Your task to perform on an android device: Go to calendar. Show me events next week Image 0: 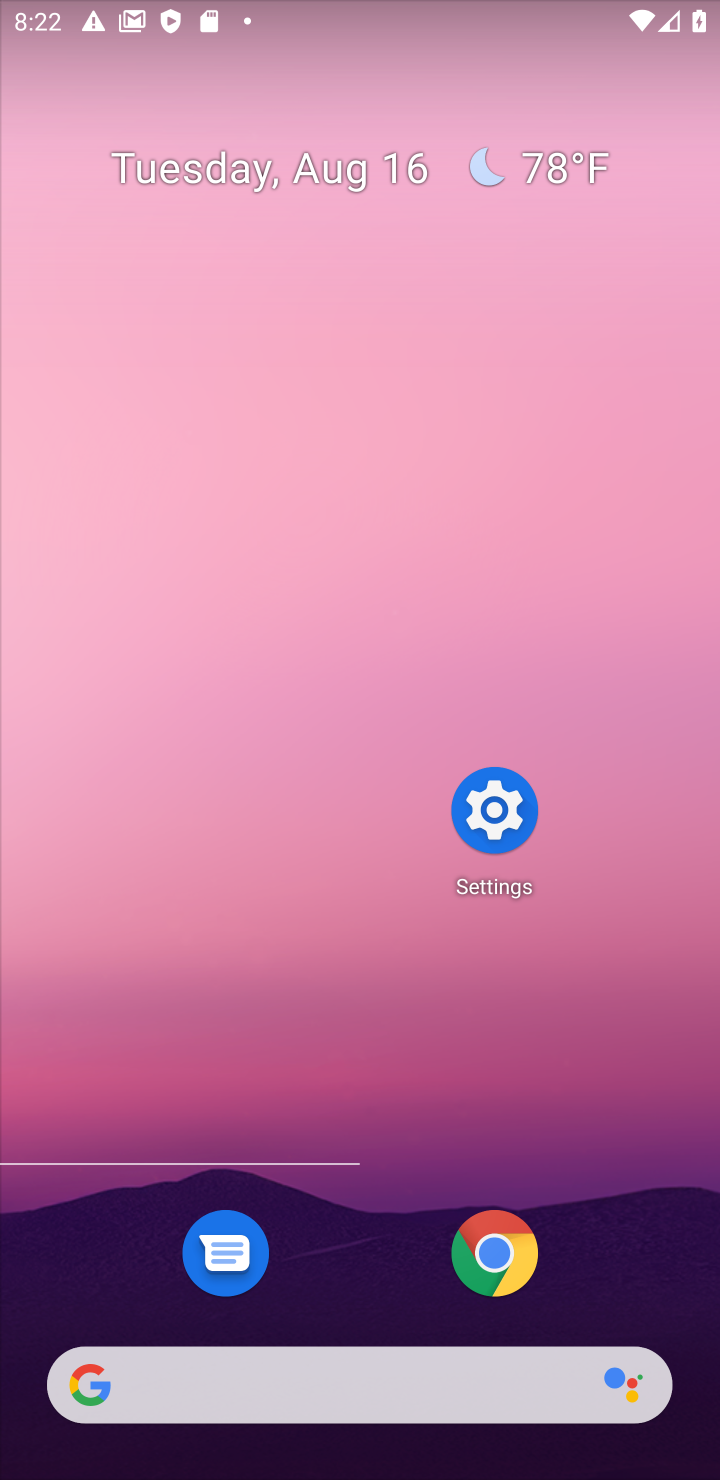
Step 0: drag from (434, 926) to (560, 164)
Your task to perform on an android device: Go to calendar. Show me events next week Image 1: 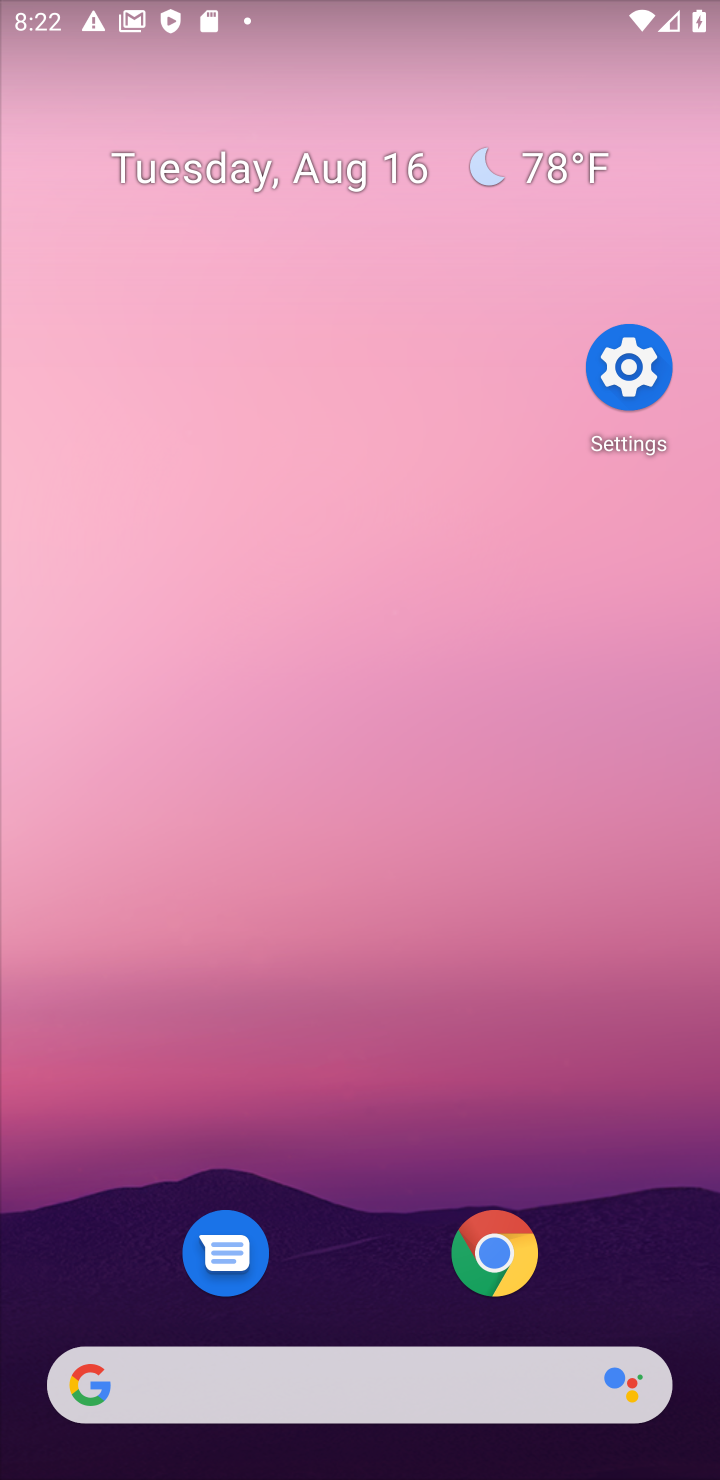
Step 1: drag from (623, 369) to (527, 939)
Your task to perform on an android device: Go to calendar. Show me events next week Image 2: 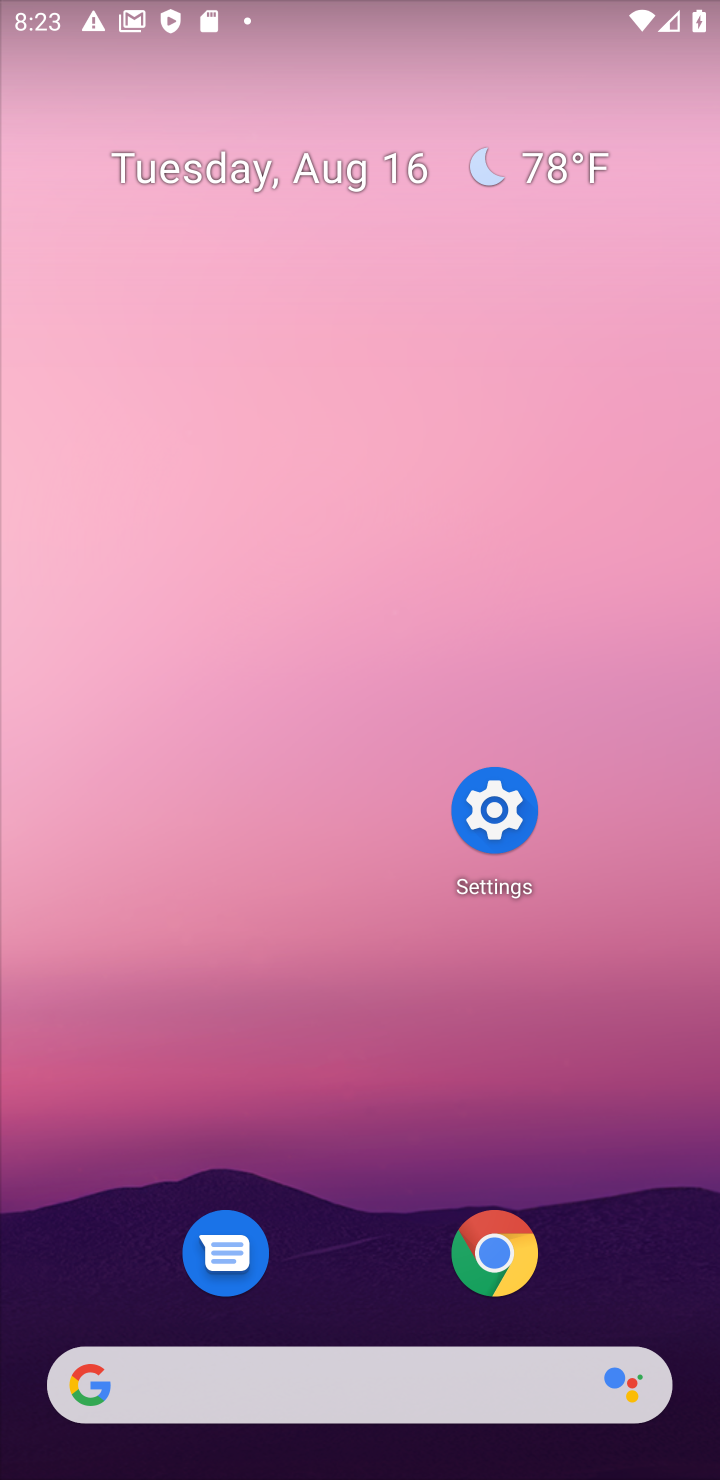
Step 2: drag from (328, 1191) to (511, 346)
Your task to perform on an android device: Go to calendar. Show me events next week Image 3: 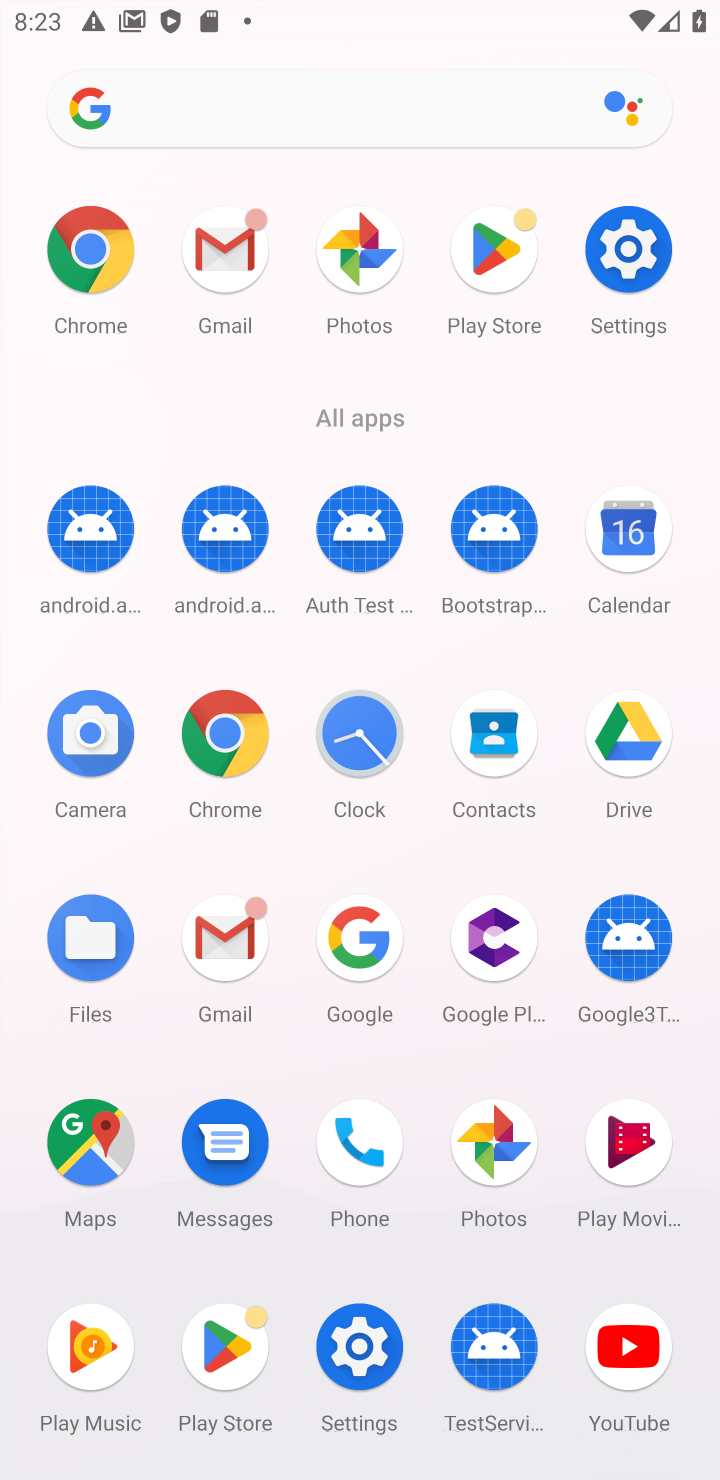
Step 3: click (218, 257)
Your task to perform on an android device: Go to calendar. Show me events next week Image 4: 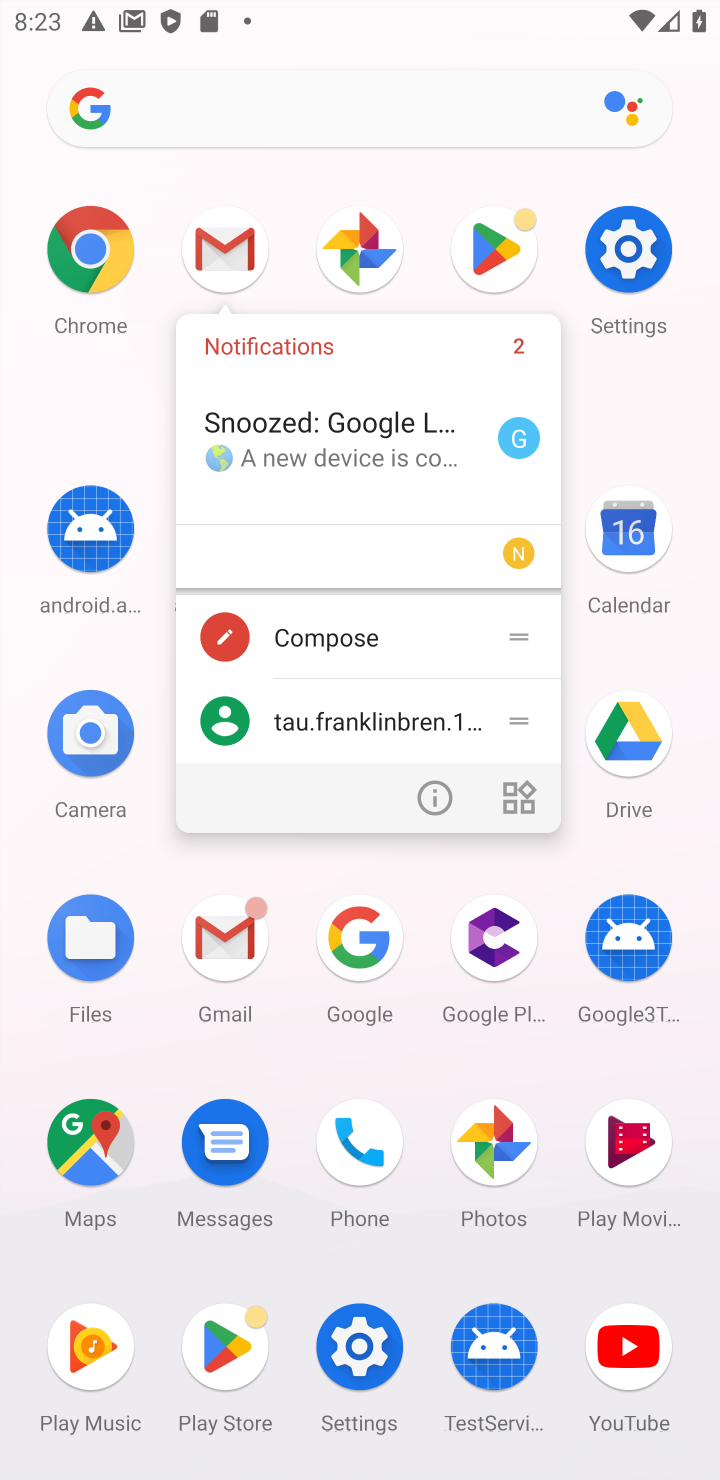
Step 4: click (616, 538)
Your task to perform on an android device: Go to calendar. Show me events next week Image 5: 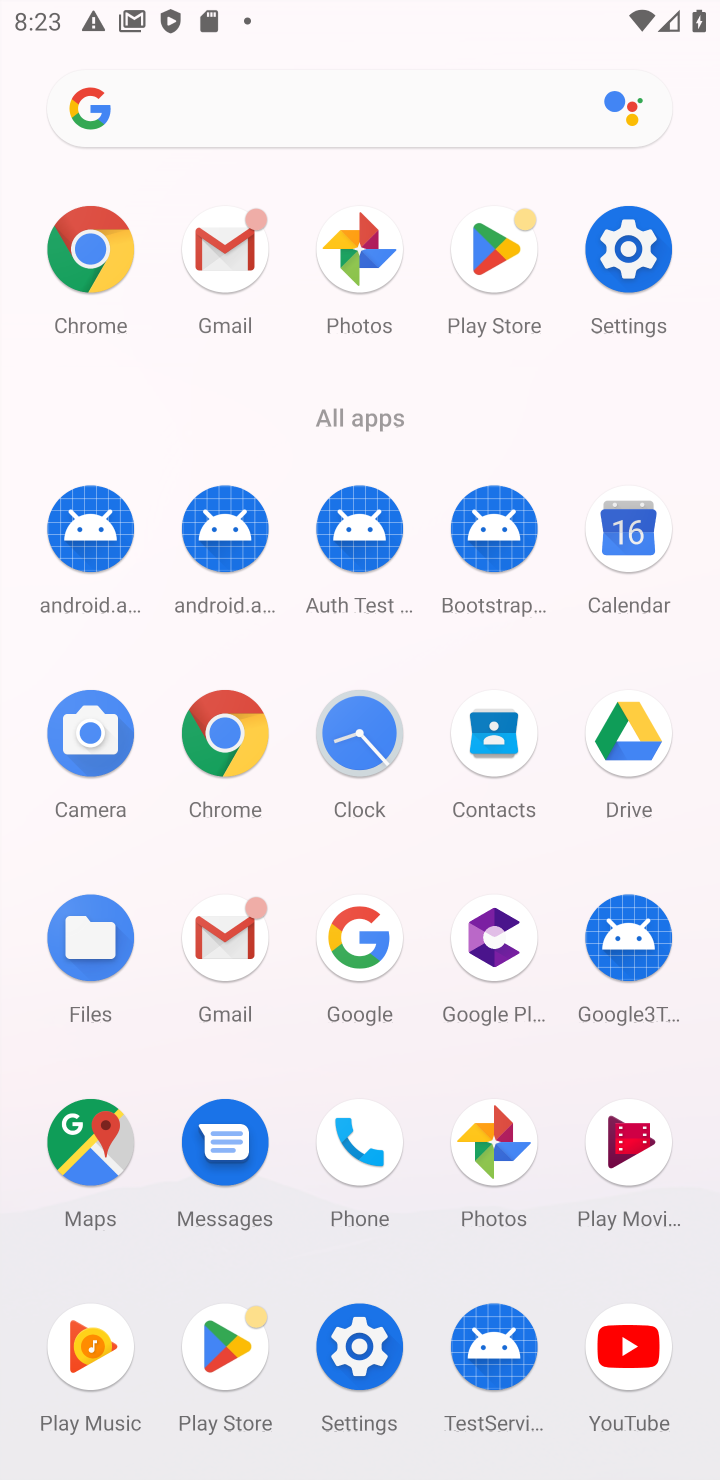
Step 5: click (632, 537)
Your task to perform on an android device: Go to calendar. Show me events next week Image 6: 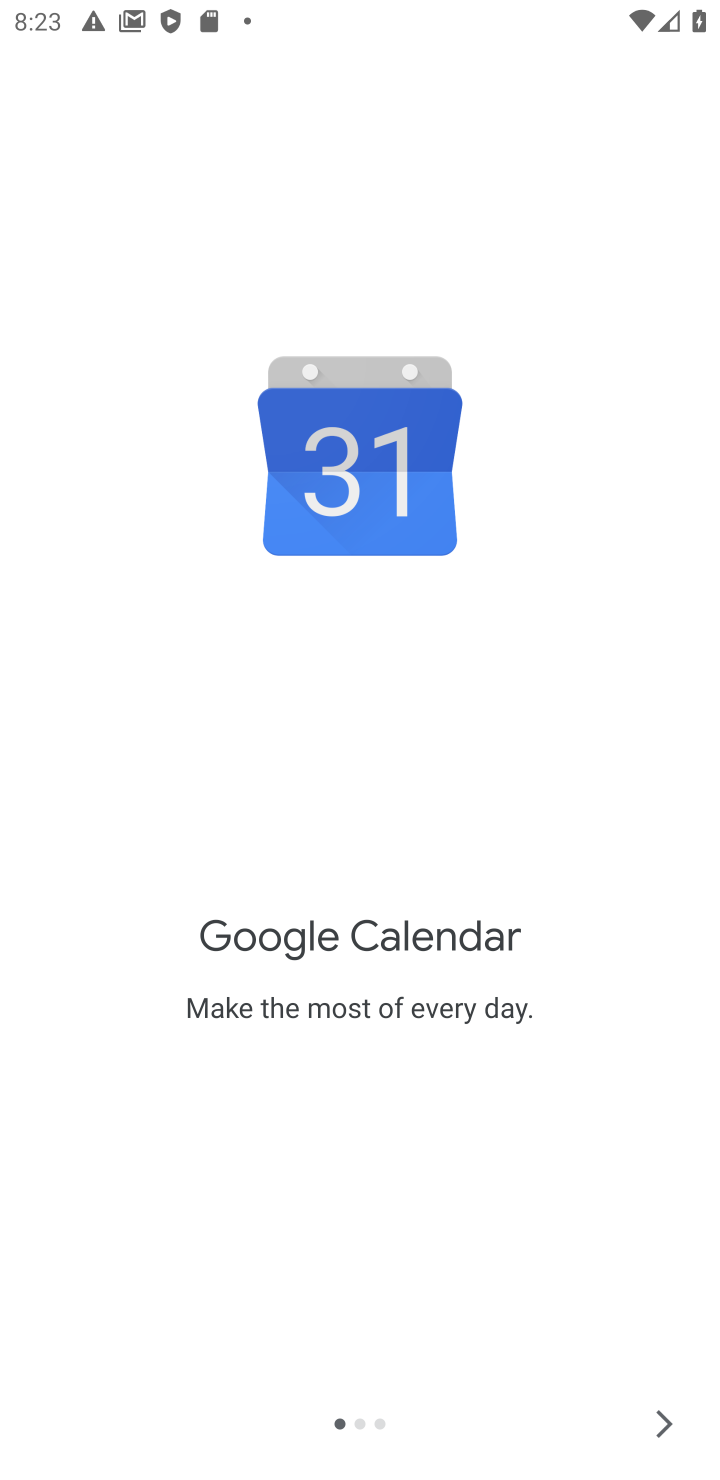
Step 6: click (668, 1422)
Your task to perform on an android device: Go to calendar. Show me events next week Image 7: 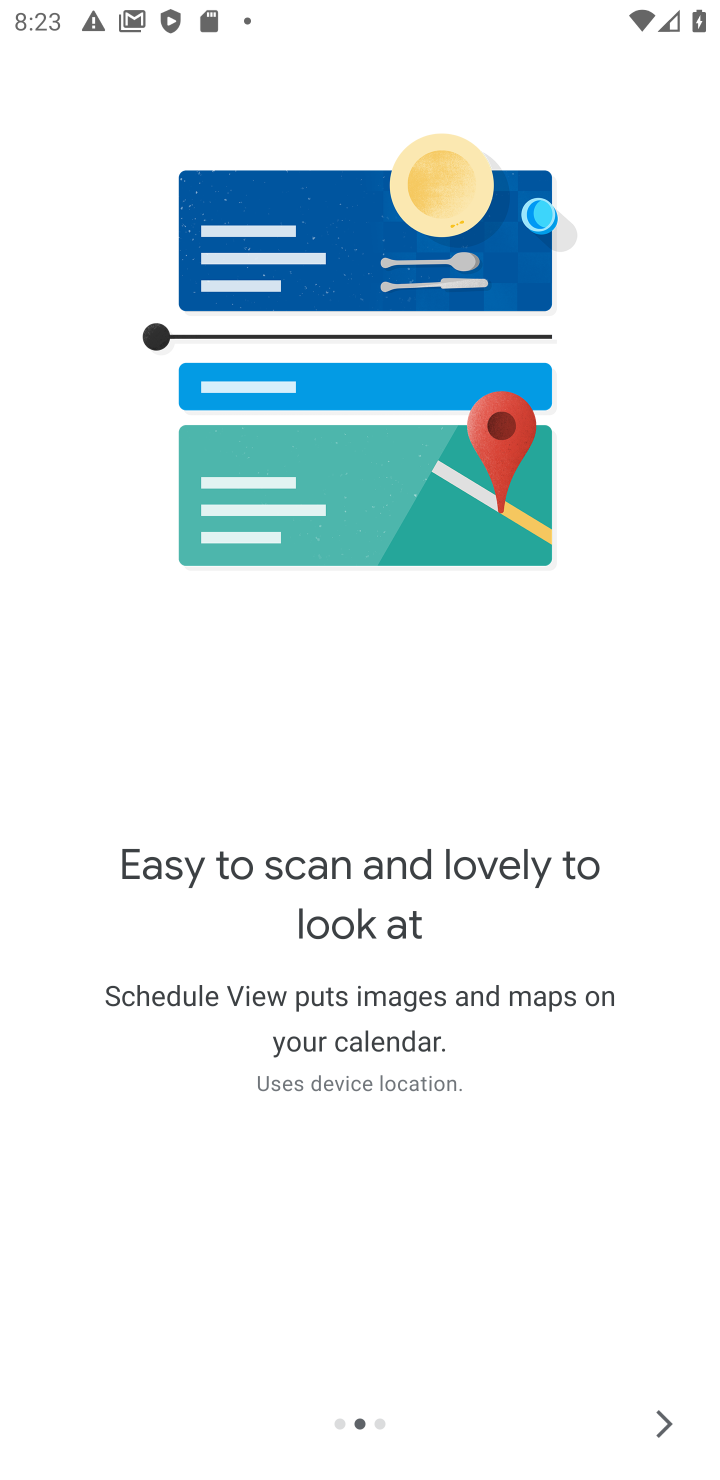
Step 7: click (668, 1422)
Your task to perform on an android device: Go to calendar. Show me events next week Image 8: 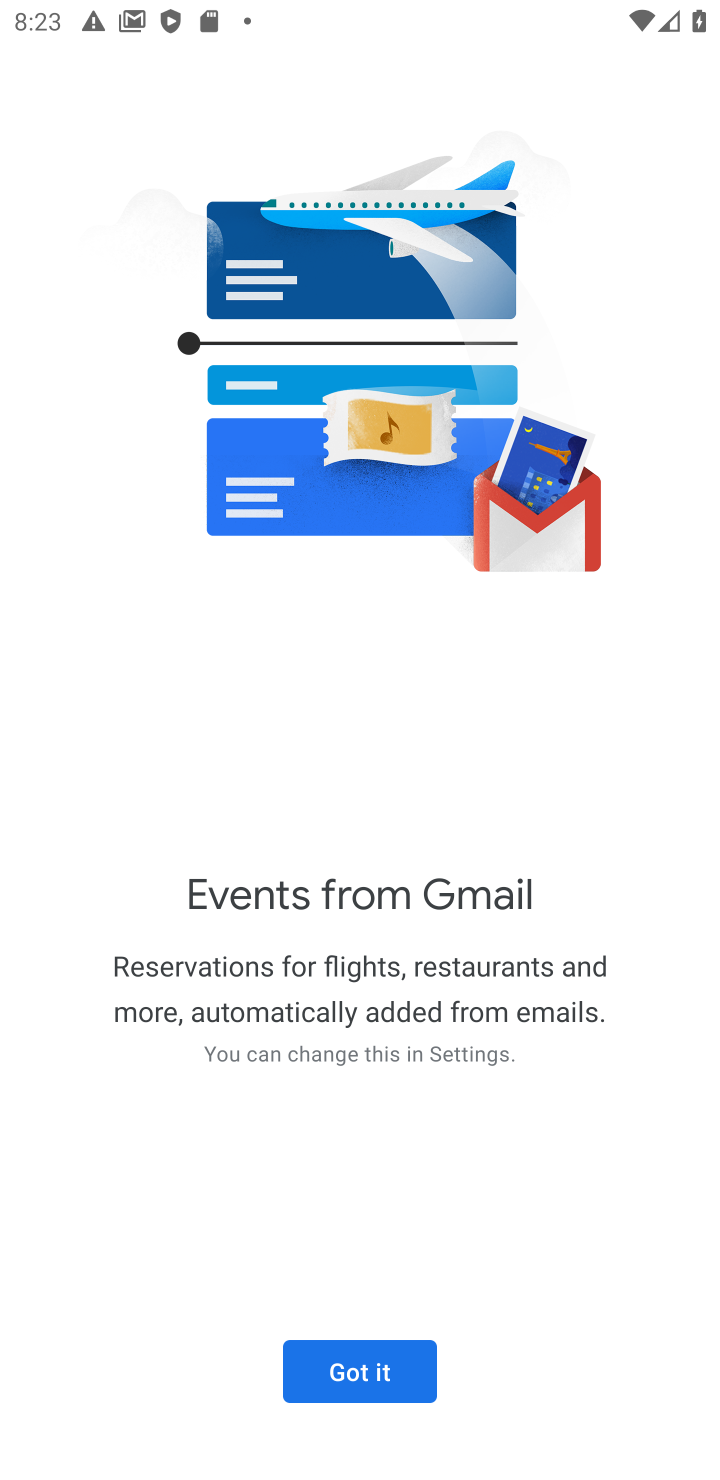
Step 8: click (374, 1369)
Your task to perform on an android device: Go to calendar. Show me events next week Image 9: 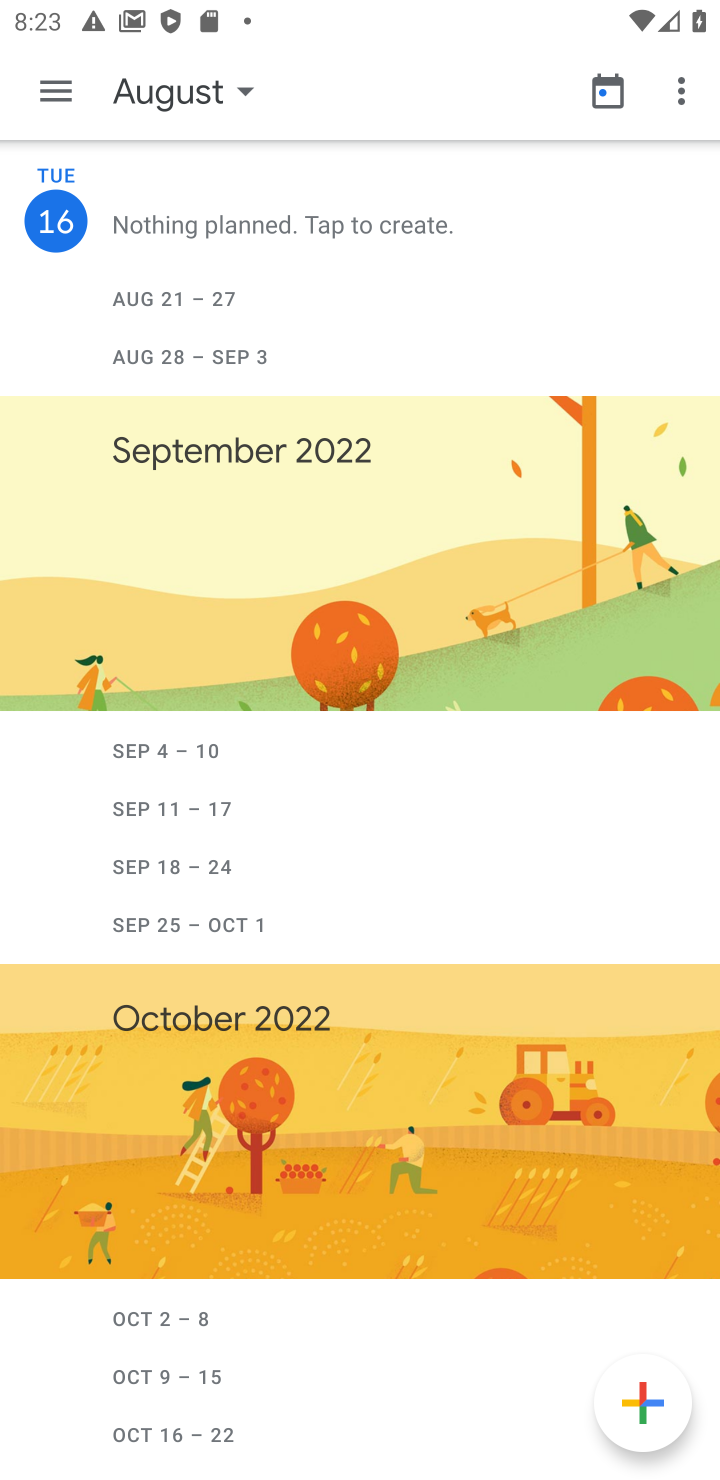
Step 9: click (194, 83)
Your task to perform on an android device: Go to calendar. Show me events next week Image 10: 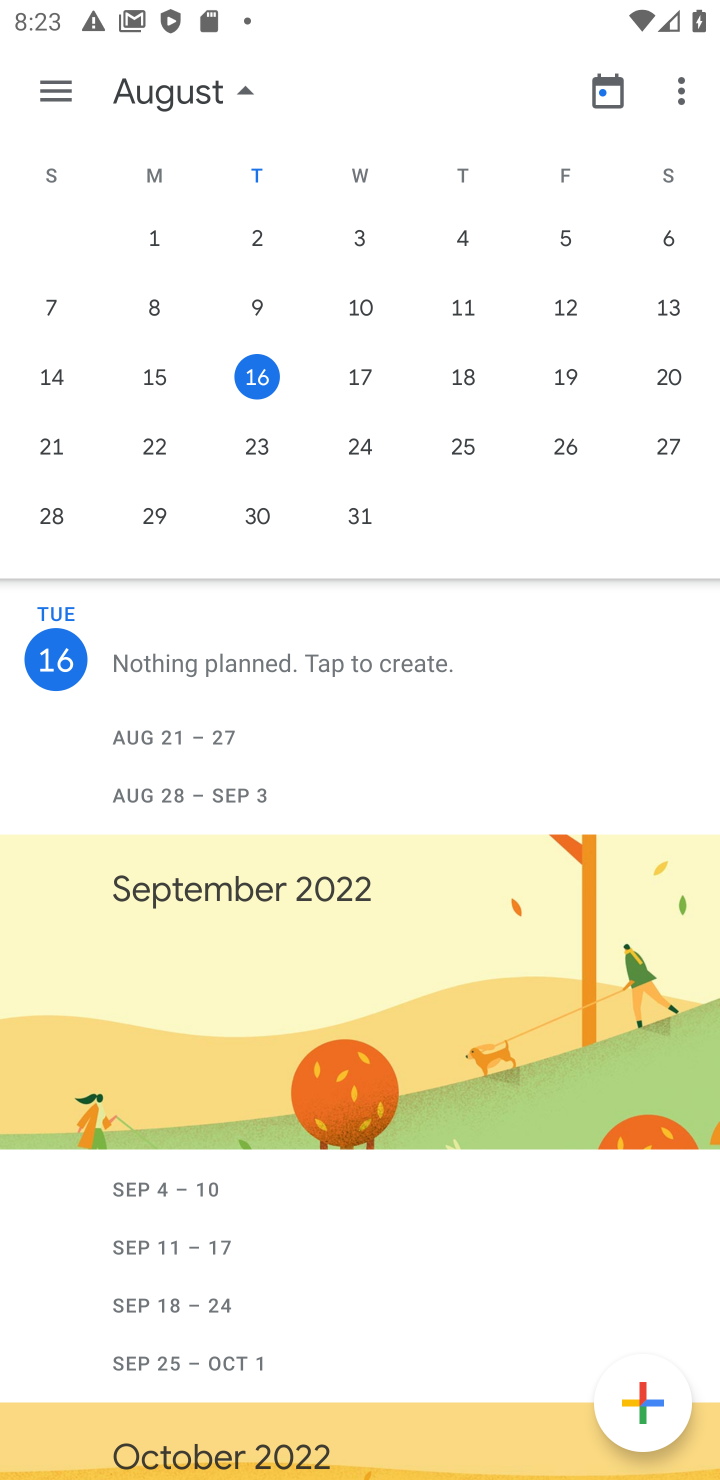
Step 10: click (47, 441)
Your task to perform on an android device: Go to calendar. Show me events next week Image 11: 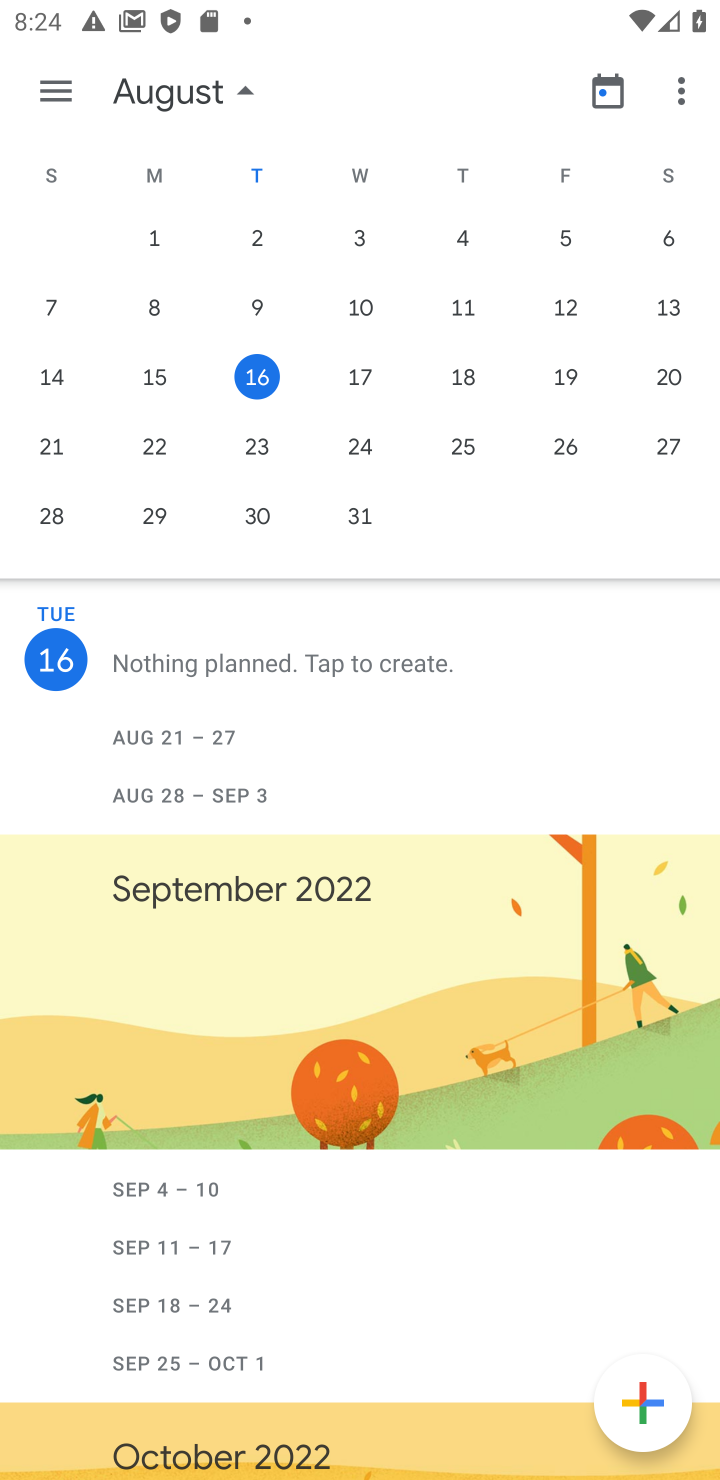
Step 11: click (67, 443)
Your task to perform on an android device: Go to calendar. Show me events next week Image 12: 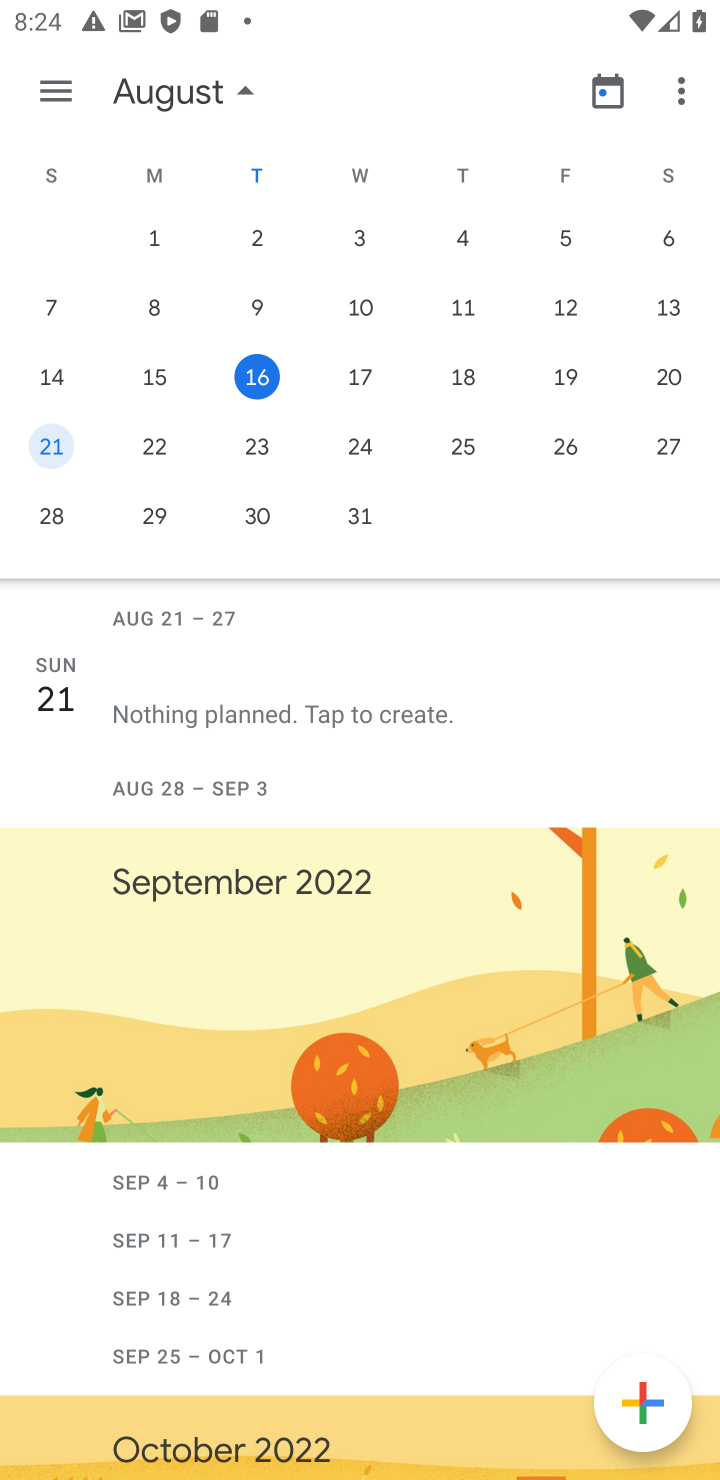
Step 12: click (60, 89)
Your task to perform on an android device: Go to calendar. Show me events next week Image 13: 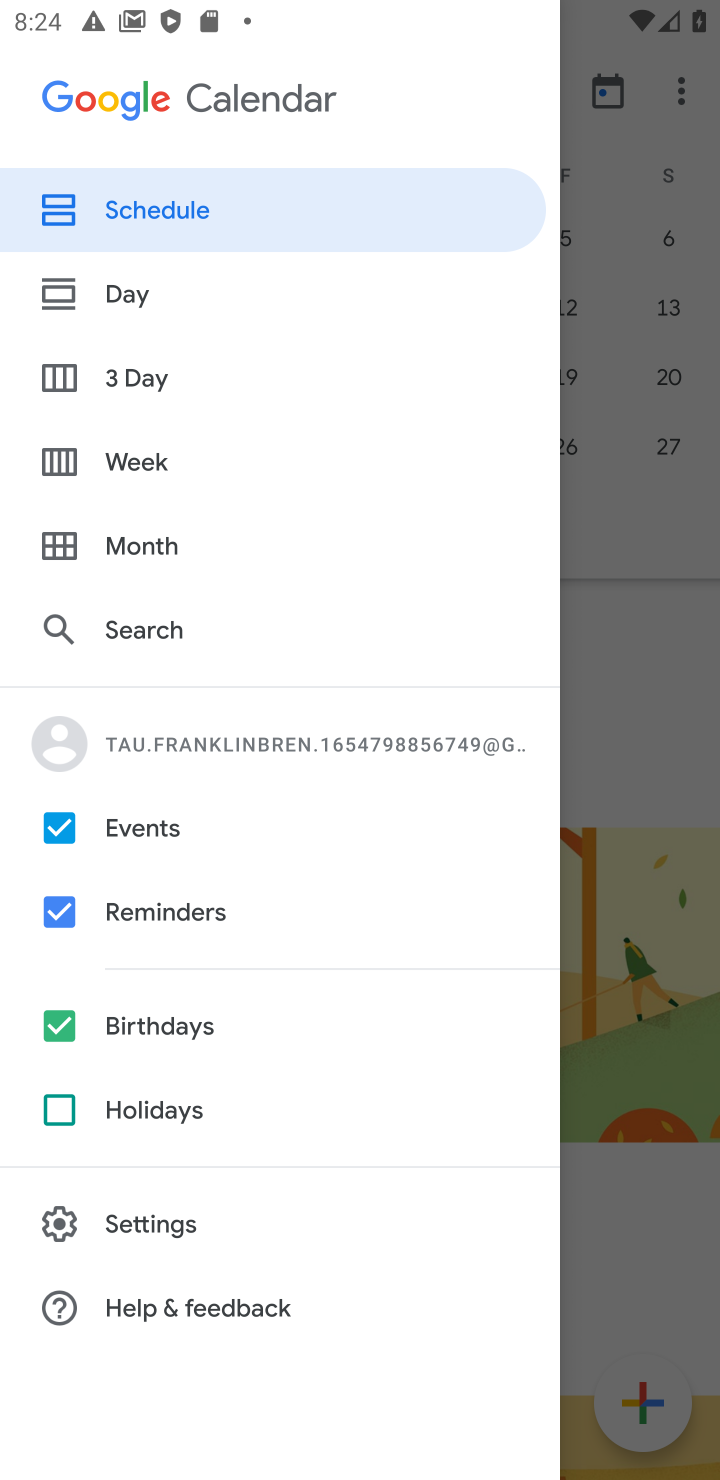
Step 13: click (130, 461)
Your task to perform on an android device: Go to calendar. Show me events next week Image 14: 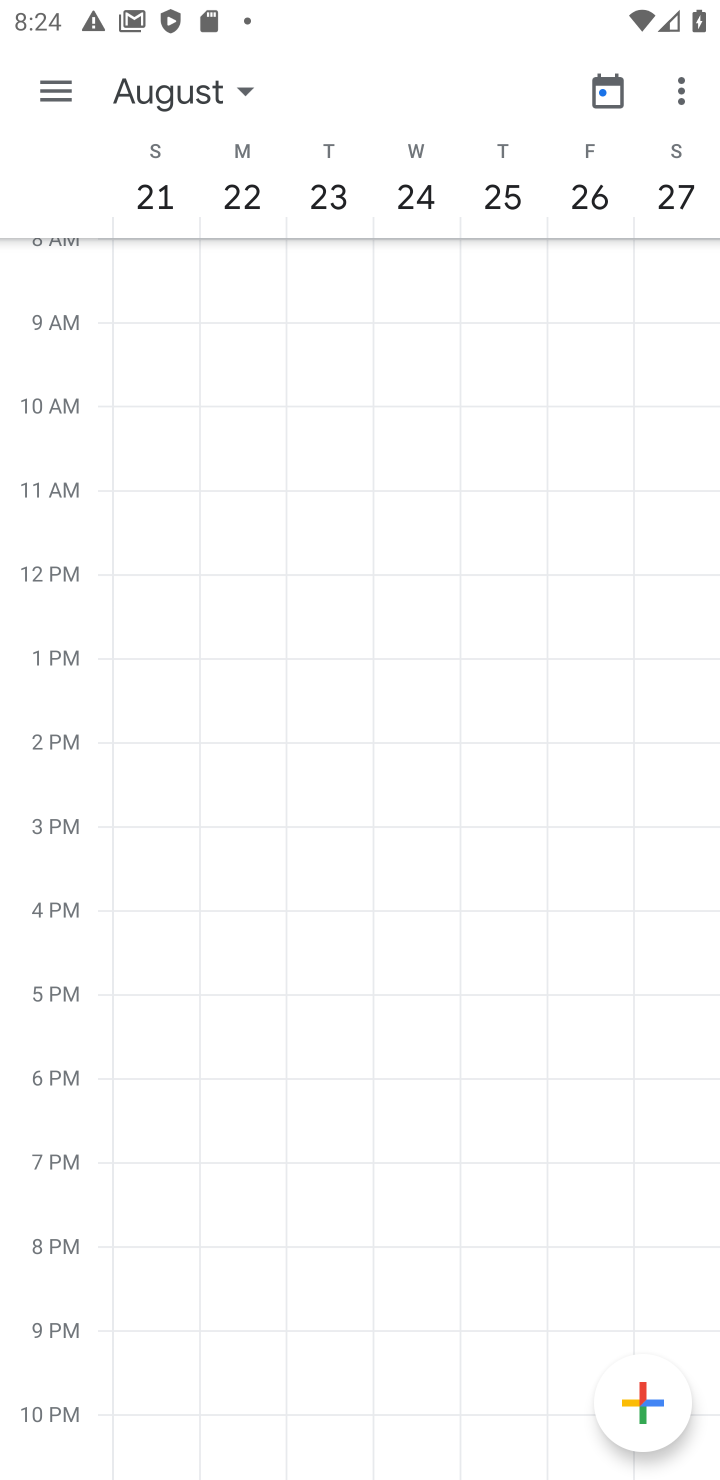
Step 14: click (61, 80)
Your task to perform on an android device: Go to calendar. Show me events next week Image 15: 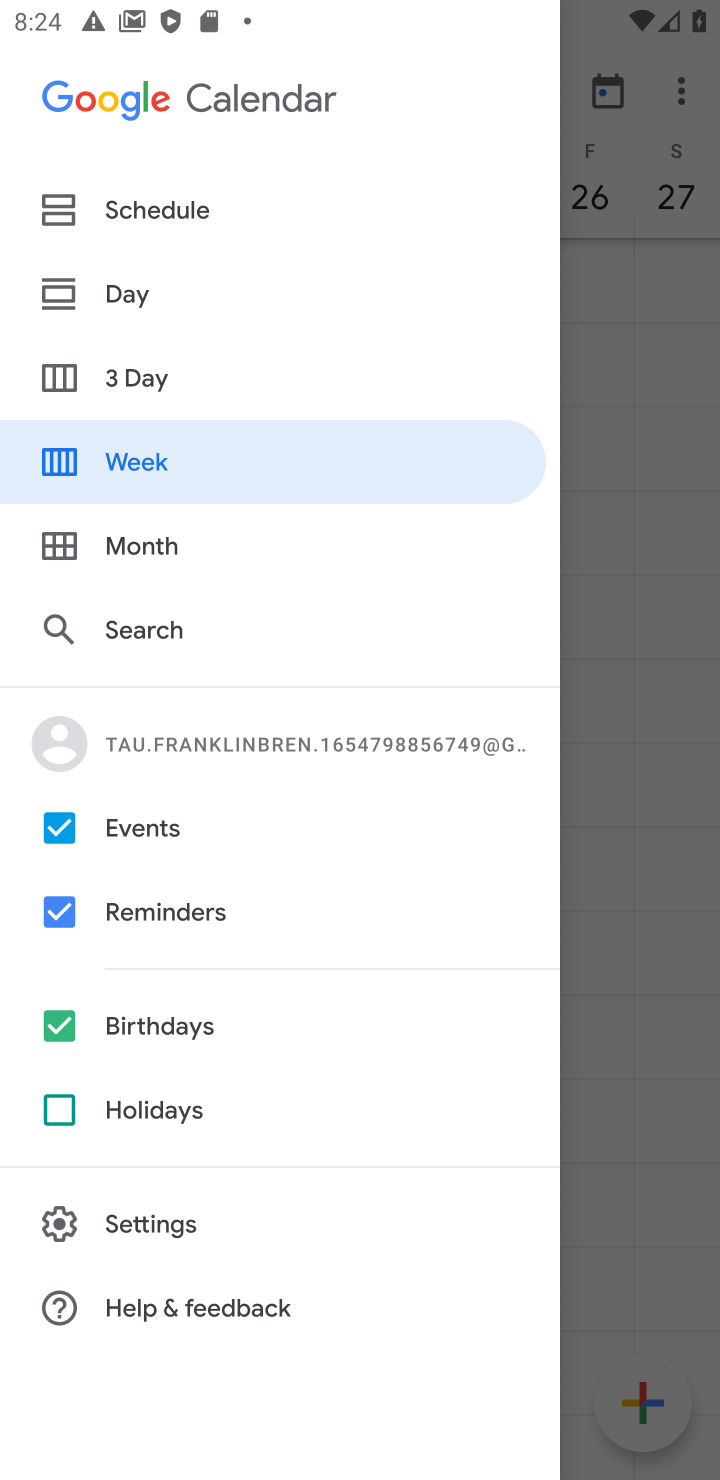
Step 15: click (173, 209)
Your task to perform on an android device: Go to calendar. Show me events next week Image 16: 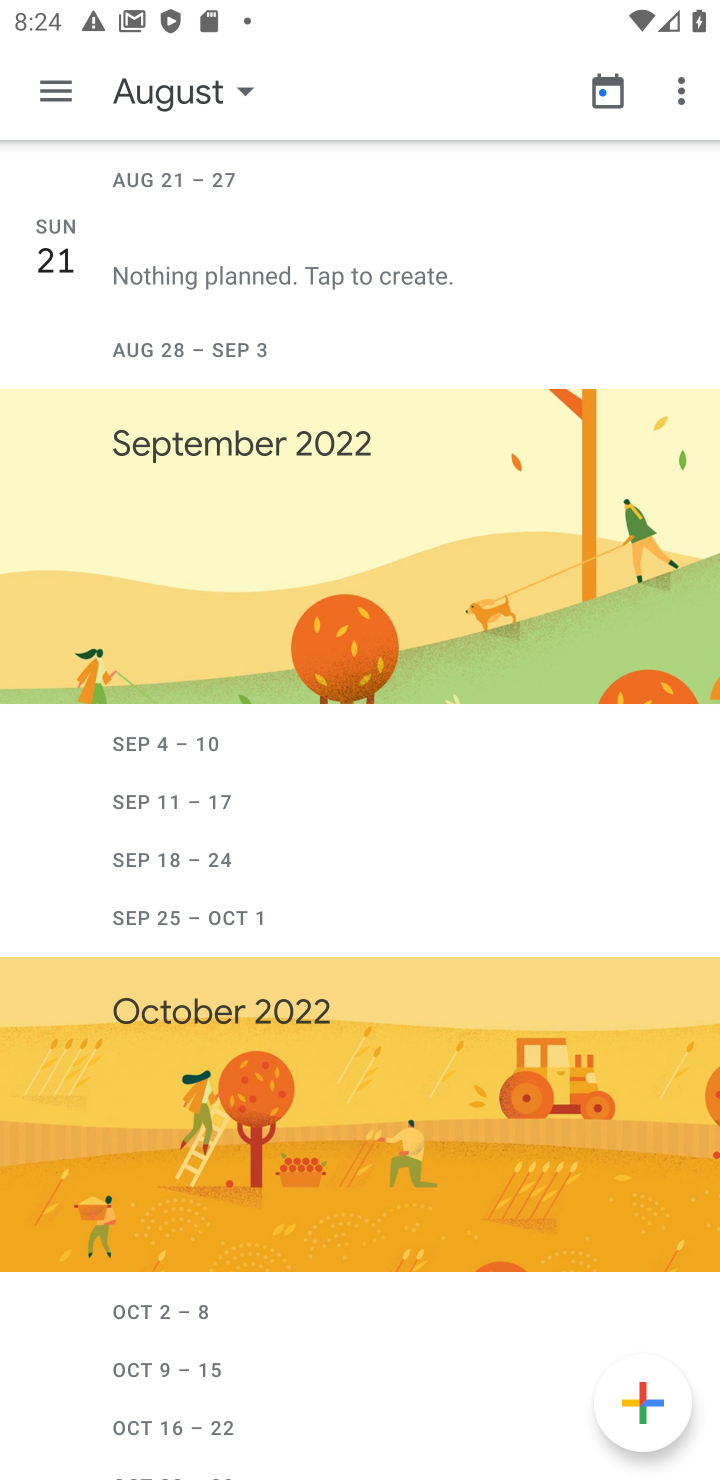
Step 16: task complete